Your task to perform on an android device: toggle translation in the chrome app Image 0: 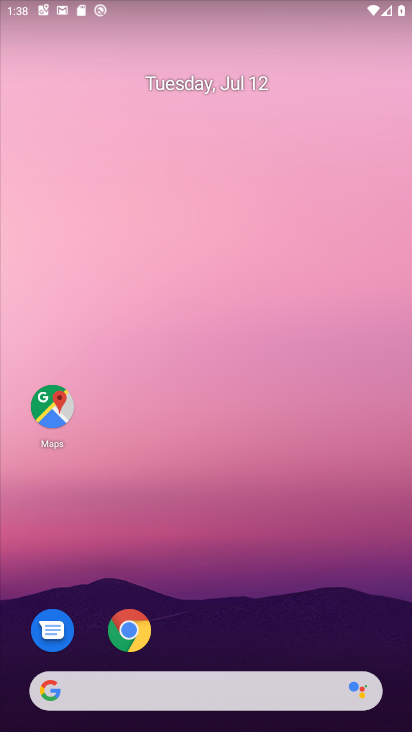
Step 0: drag from (260, 643) to (220, 258)
Your task to perform on an android device: toggle translation in the chrome app Image 1: 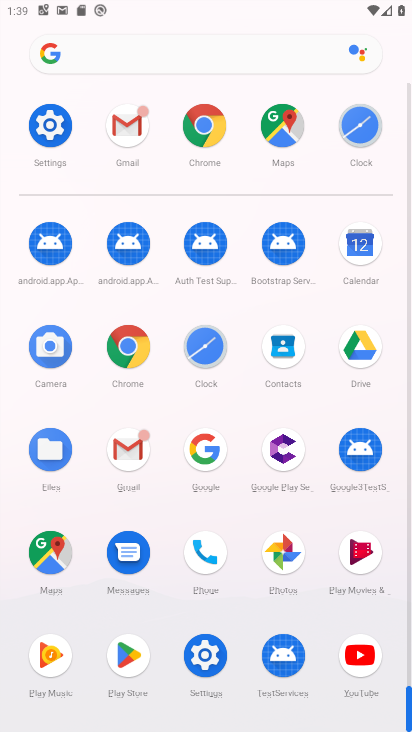
Step 1: click (196, 139)
Your task to perform on an android device: toggle translation in the chrome app Image 2: 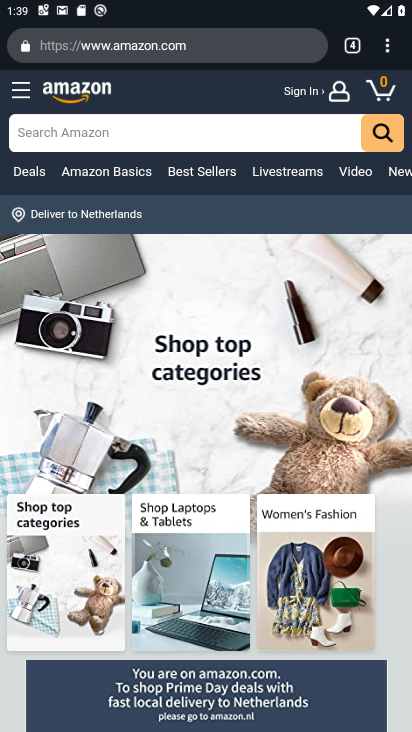
Step 2: click (386, 45)
Your task to perform on an android device: toggle translation in the chrome app Image 3: 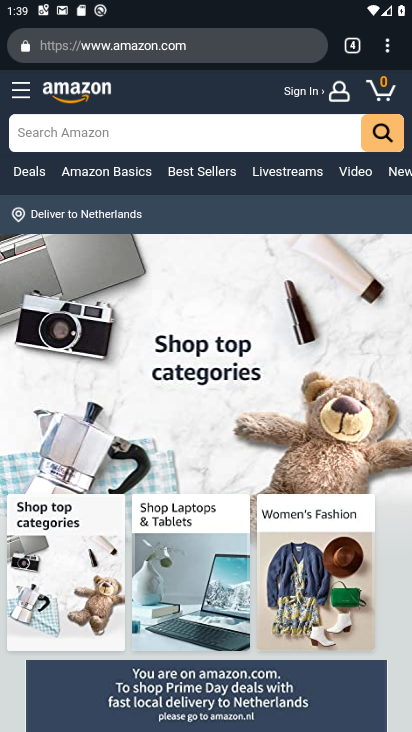
Step 3: click (391, 47)
Your task to perform on an android device: toggle translation in the chrome app Image 4: 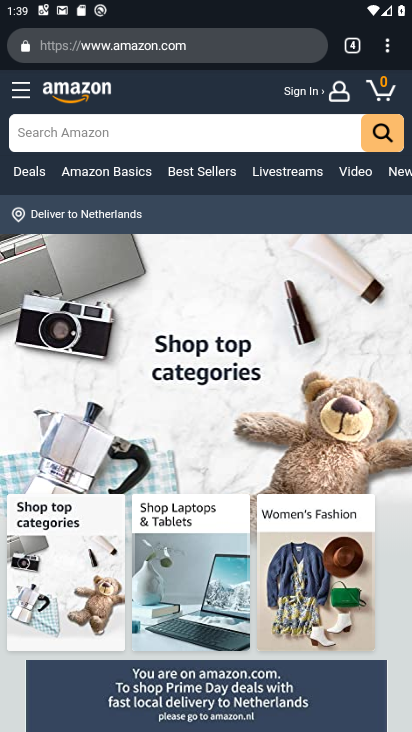
Step 4: click (381, 48)
Your task to perform on an android device: toggle translation in the chrome app Image 5: 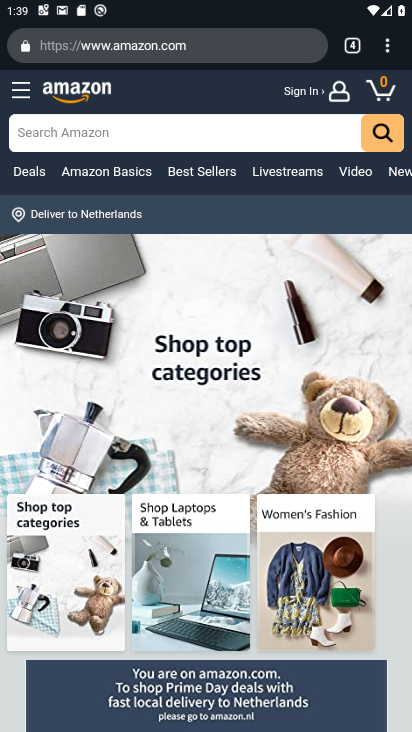
Step 5: click (382, 53)
Your task to perform on an android device: toggle translation in the chrome app Image 6: 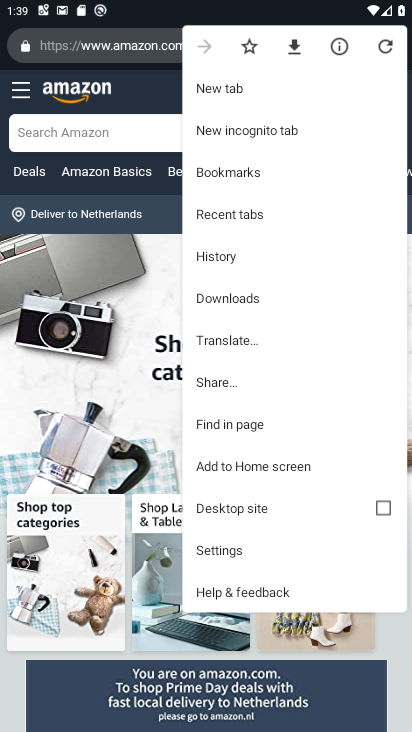
Step 6: click (234, 348)
Your task to perform on an android device: toggle translation in the chrome app Image 7: 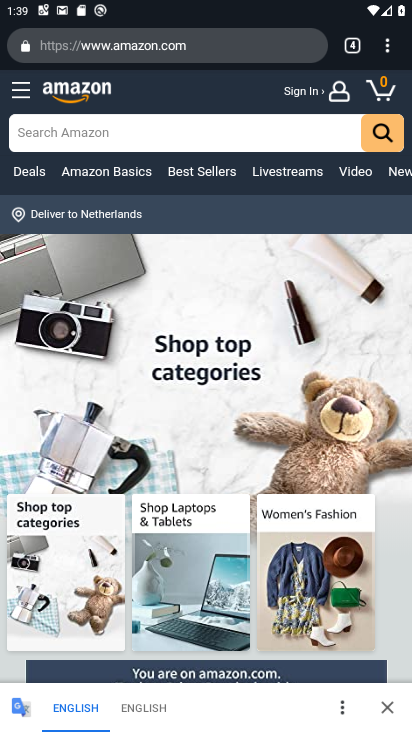
Step 7: click (351, 706)
Your task to perform on an android device: toggle translation in the chrome app Image 8: 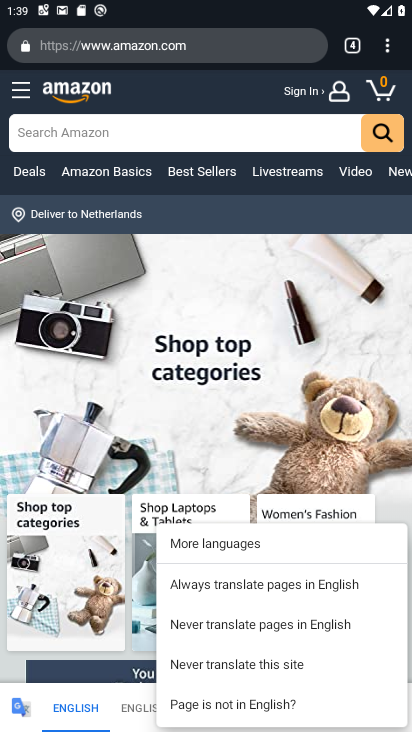
Step 8: click (264, 662)
Your task to perform on an android device: toggle translation in the chrome app Image 9: 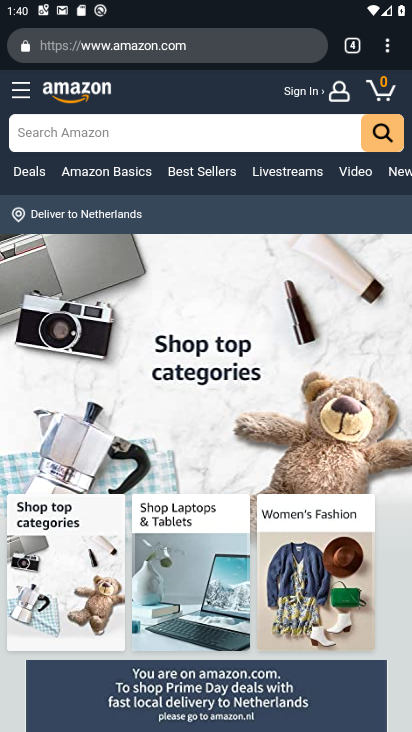
Step 9: task complete